Your task to perform on an android device: Check the weather Image 0: 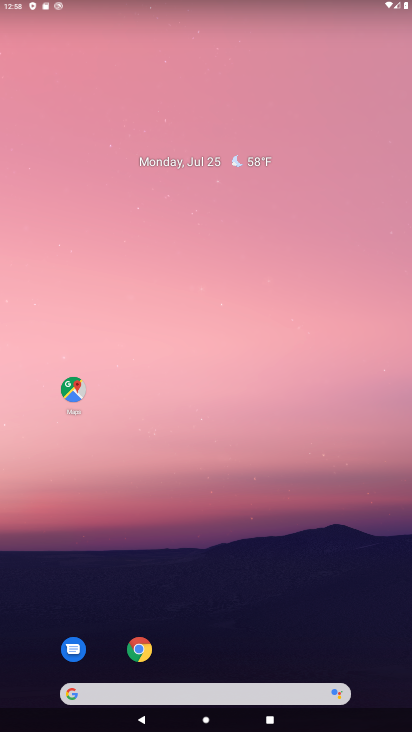
Step 0: drag from (196, 689) to (261, 35)
Your task to perform on an android device: Check the weather Image 1: 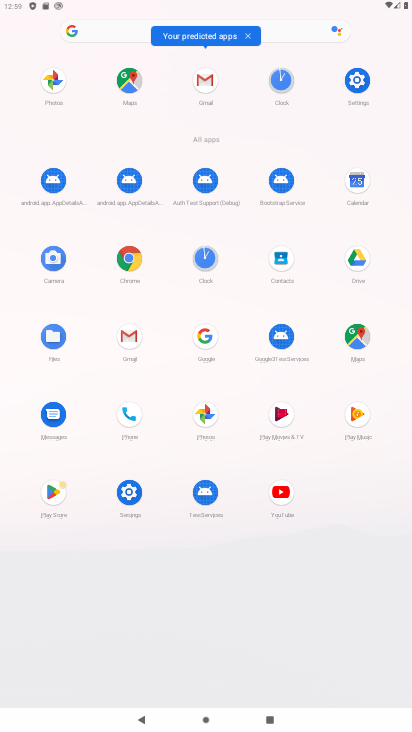
Step 1: click (201, 336)
Your task to perform on an android device: Check the weather Image 2: 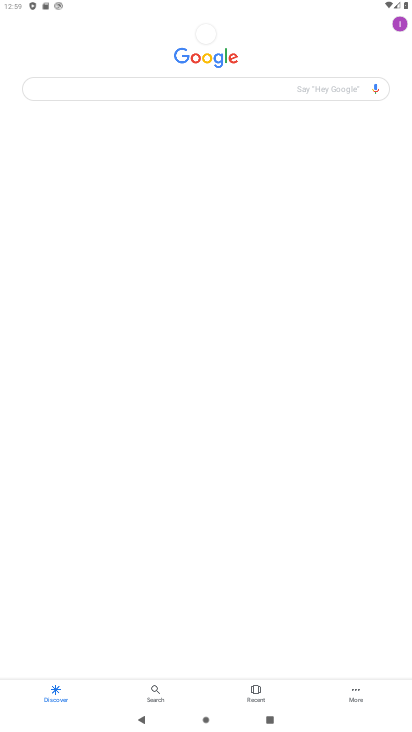
Step 2: click (171, 85)
Your task to perform on an android device: Check the weather Image 3: 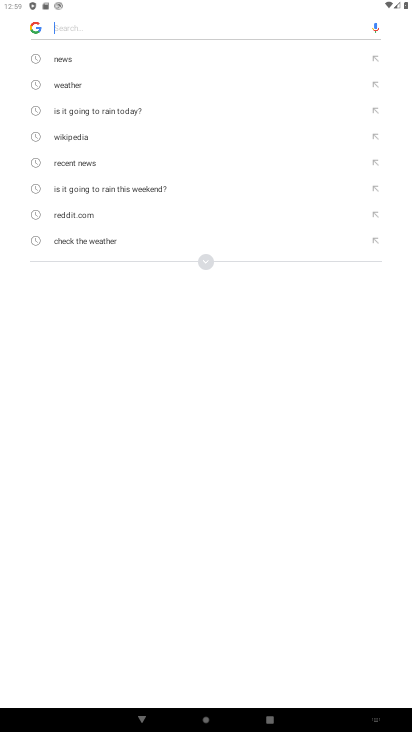
Step 3: type "weather"
Your task to perform on an android device: Check the weather Image 4: 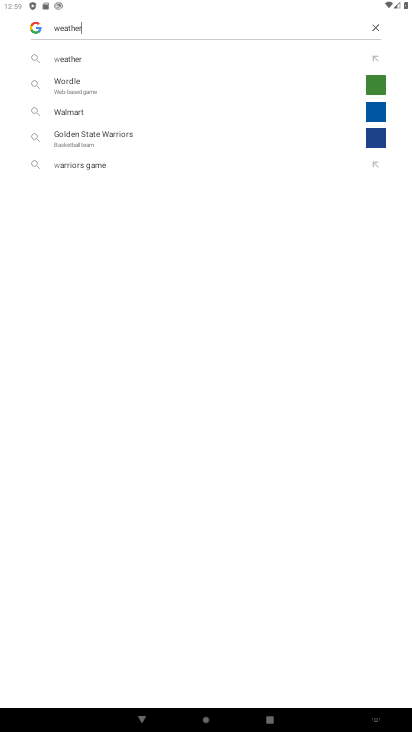
Step 4: type ""
Your task to perform on an android device: Check the weather Image 5: 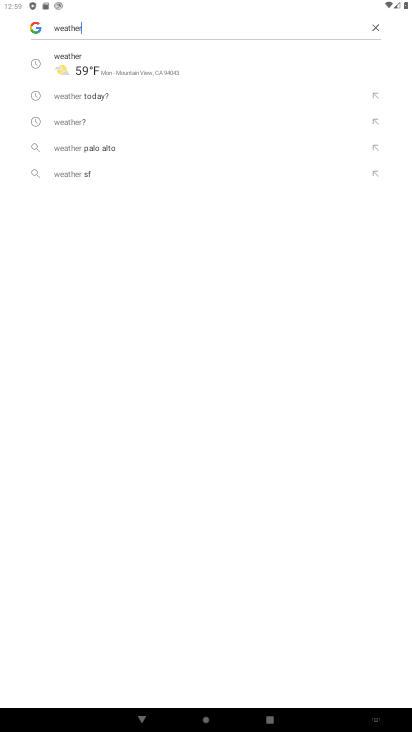
Step 5: click (94, 66)
Your task to perform on an android device: Check the weather Image 6: 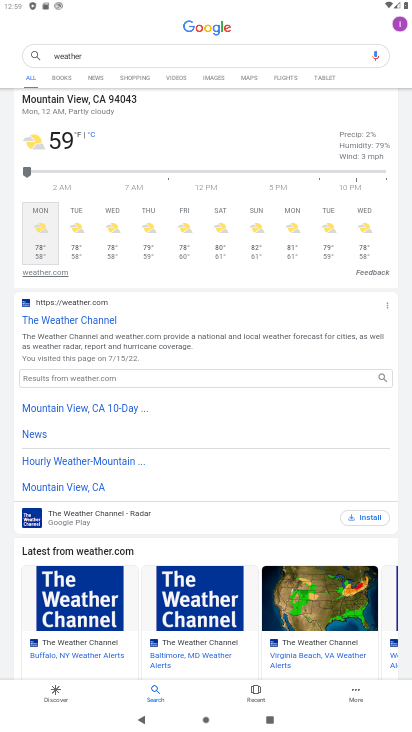
Step 6: task complete